Your task to perform on an android device: Search for seafood restaurants on Google Maps Image 0: 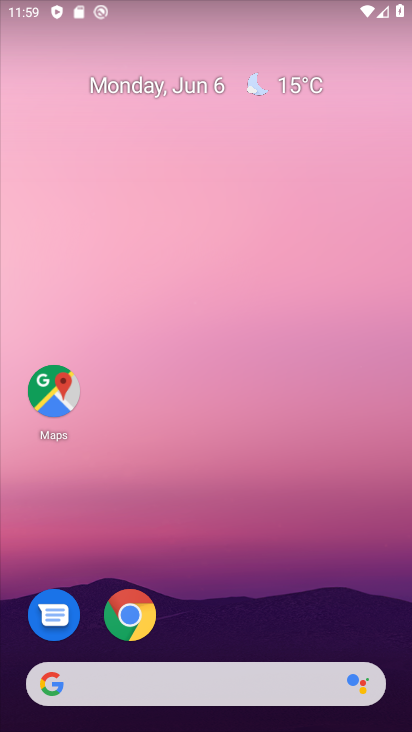
Step 0: click (204, 137)
Your task to perform on an android device: Search for seafood restaurants on Google Maps Image 1: 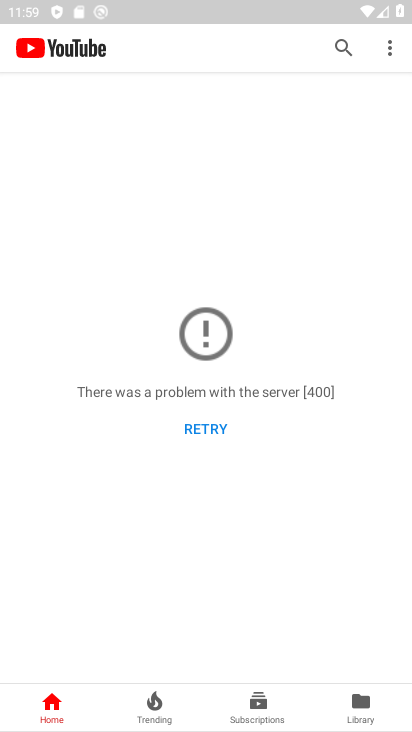
Step 1: press home button
Your task to perform on an android device: Search for seafood restaurants on Google Maps Image 2: 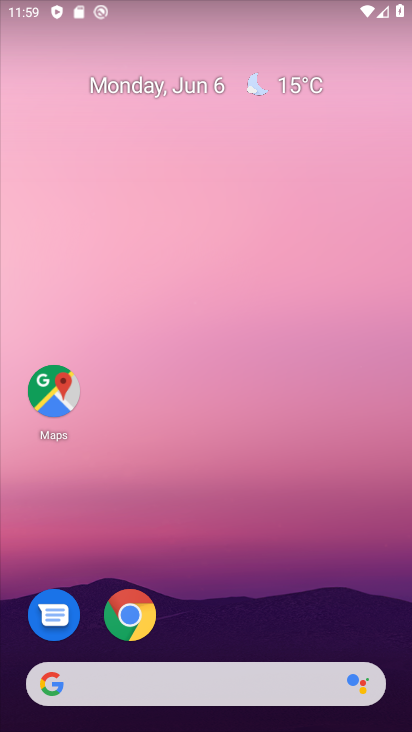
Step 2: drag from (214, 622) to (183, 174)
Your task to perform on an android device: Search for seafood restaurants on Google Maps Image 3: 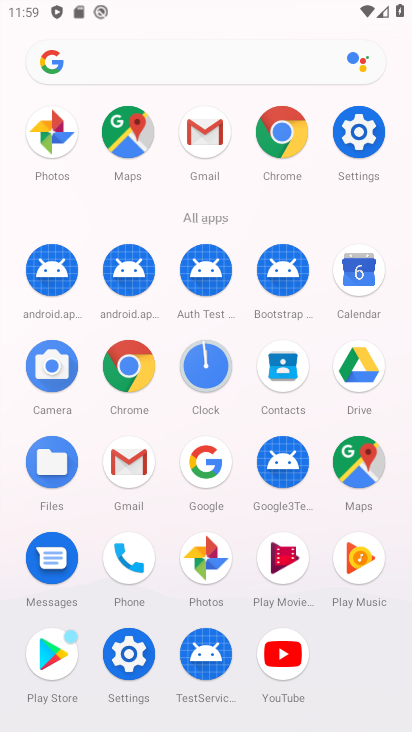
Step 3: click (354, 473)
Your task to perform on an android device: Search for seafood restaurants on Google Maps Image 4: 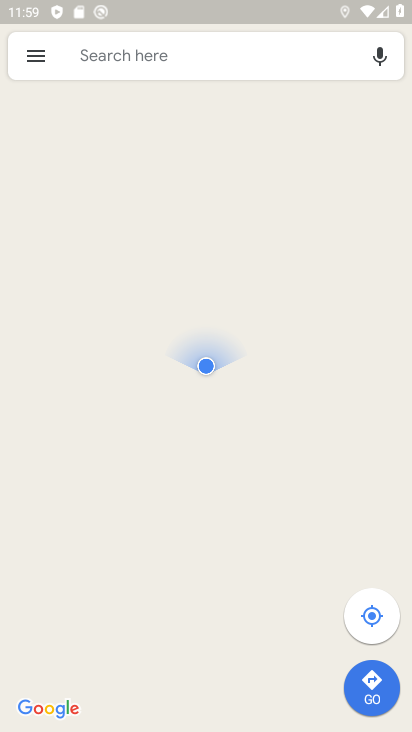
Step 4: click (135, 60)
Your task to perform on an android device: Search for seafood restaurants on Google Maps Image 5: 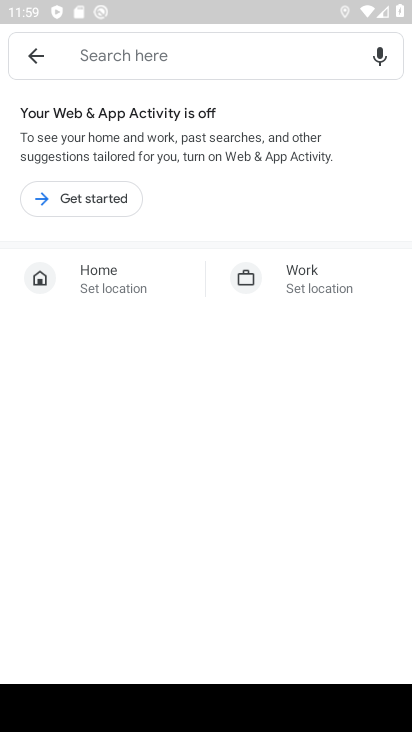
Step 5: click (23, 62)
Your task to perform on an android device: Search for seafood restaurants on Google Maps Image 6: 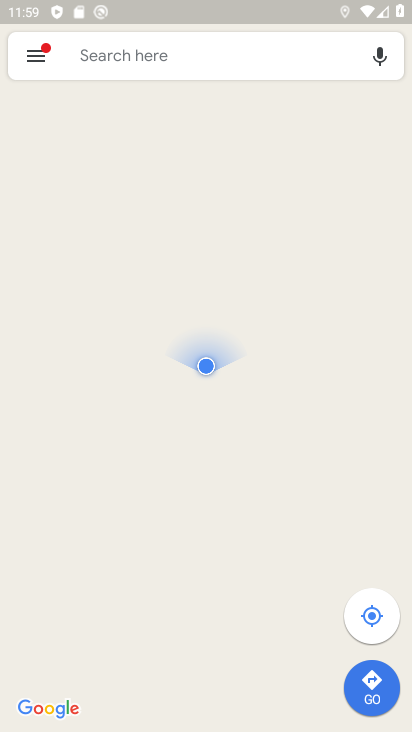
Step 6: click (128, 54)
Your task to perform on an android device: Search for seafood restaurants on Google Maps Image 7: 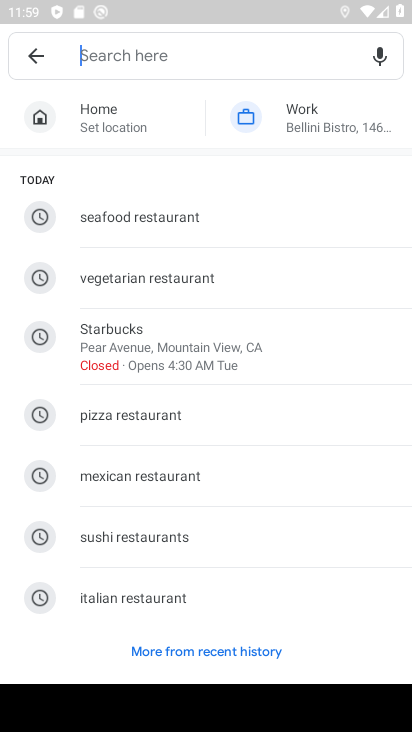
Step 7: click (34, 50)
Your task to perform on an android device: Search for seafood restaurants on Google Maps Image 8: 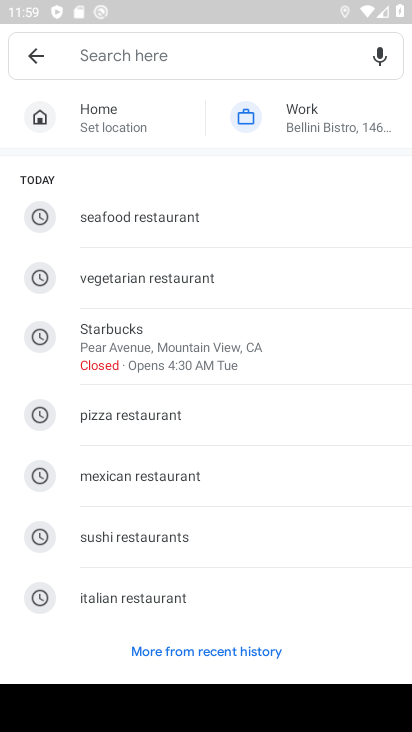
Step 8: click (158, 221)
Your task to perform on an android device: Search for seafood restaurants on Google Maps Image 9: 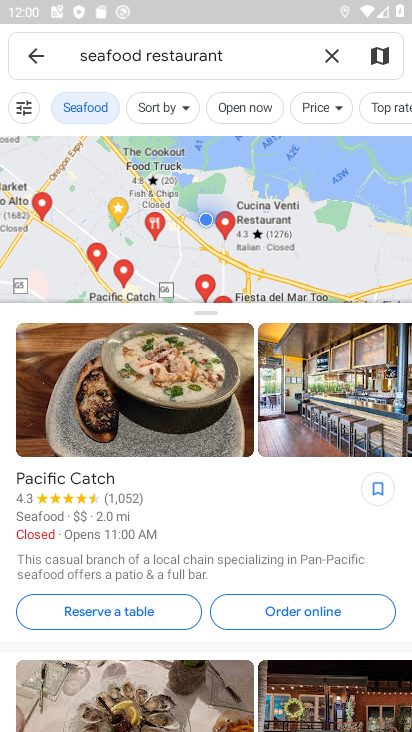
Step 9: task complete